Your task to perform on an android device: Search for vegetarian restaurants on Maps Image 0: 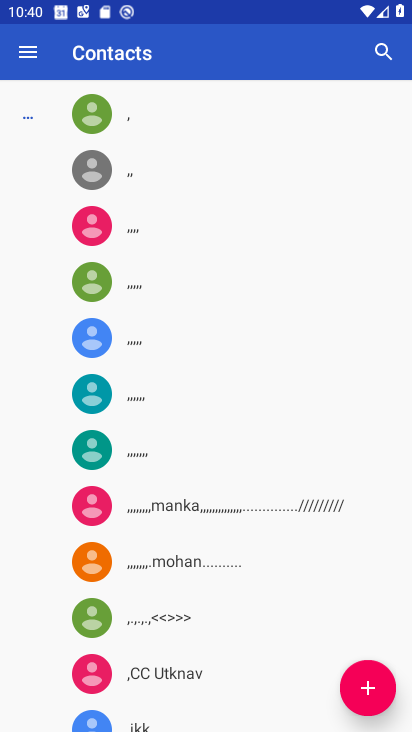
Step 0: press home button
Your task to perform on an android device: Search for vegetarian restaurants on Maps Image 1: 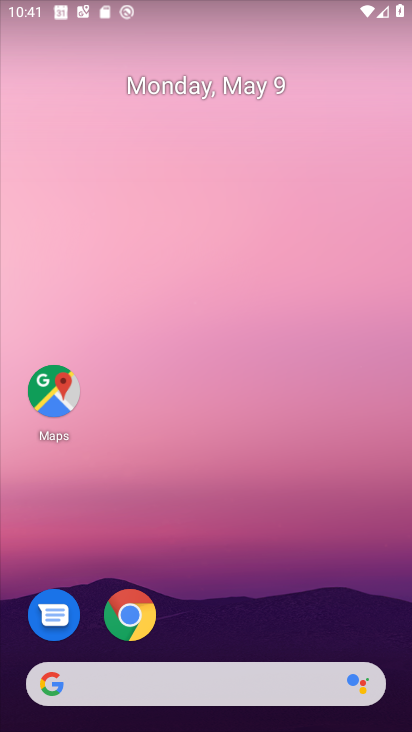
Step 1: click (53, 375)
Your task to perform on an android device: Search for vegetarian restaurants on Maps Image 2: 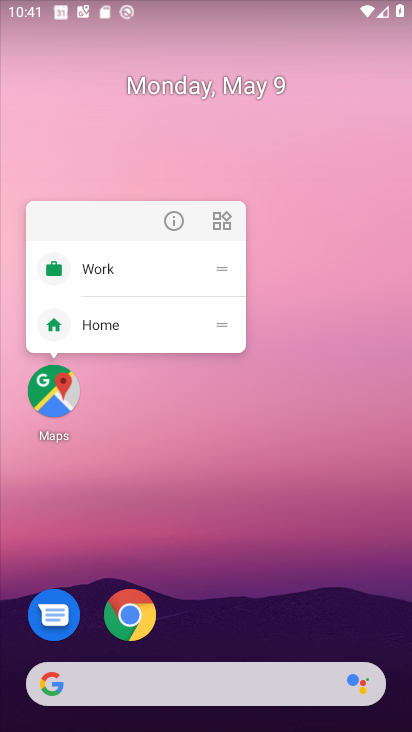
Step 2: click (72, 404)
Your task to perform on an android device: Search for vegetarian restaurants on Maps Image 3: 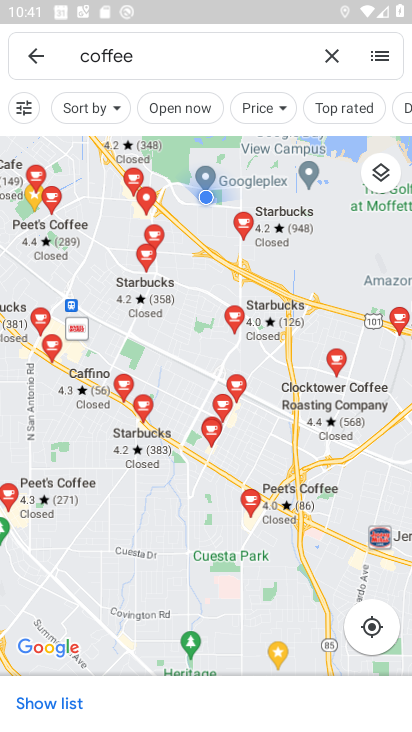
Step 3: click (334, 50)
Your task to perform on an android device: Search for vegetarian restaurants on Maps Image 4: 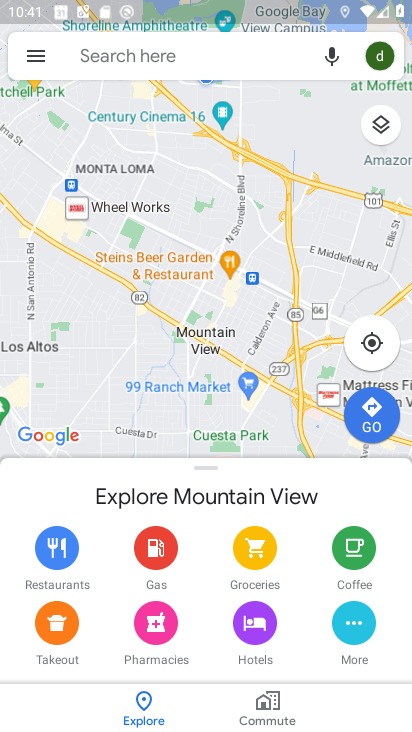
Step 4: click (164, 57)
Your task to perform on an android device: Search for vegetarian restaurants on Maps Image 5: 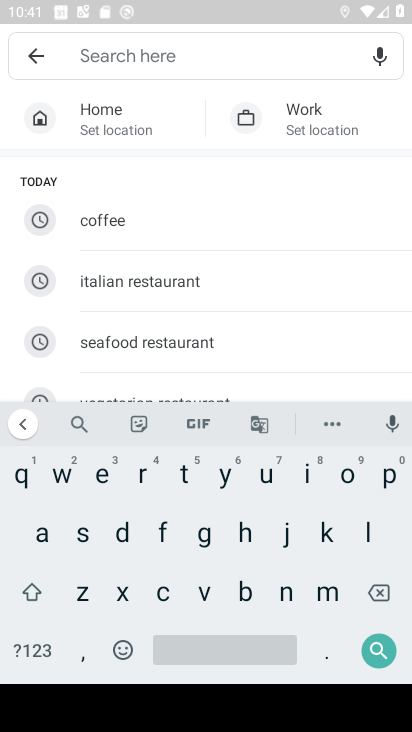
Step 5: click (203, 589)
Your task to perform on an android device: Search for vegetarian restaurants on Maps Image 6: 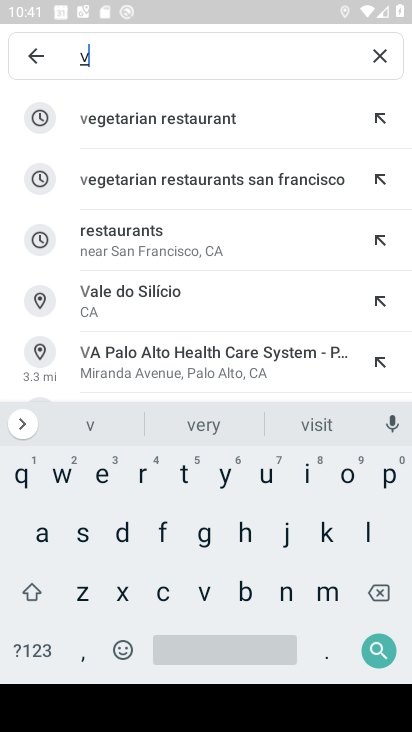
Step 6: click (177, 114)
Your task to perform on an android device: Search for vegetarian restaurants on Maps Image 7: 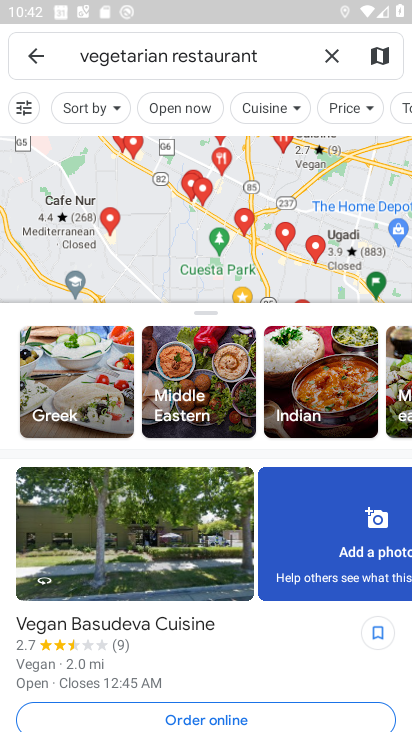
Step 7: click (156, 181)
Your task to perform on an android device: Search for vegetarian restaurants on Maps Image 8: 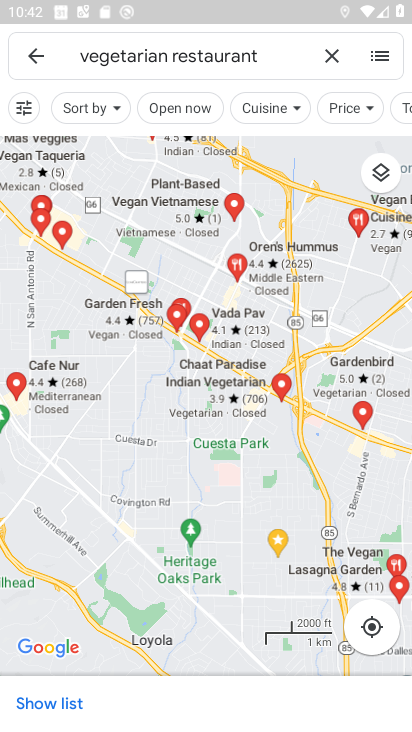
Step 8: task complete